Your task to perform on an android device: delete a single message in the gmail app Image 0: 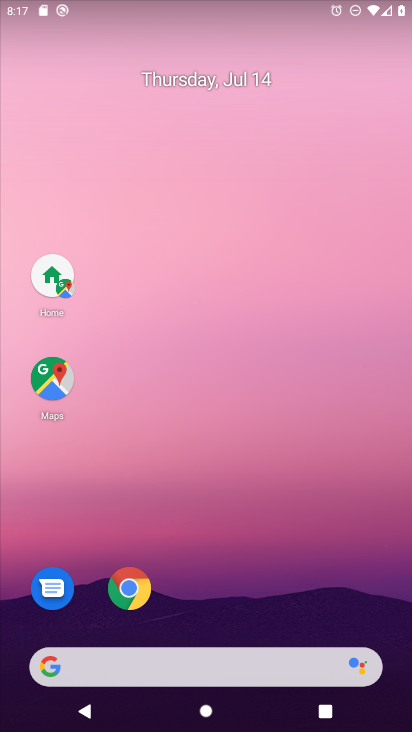
Step 0: drag from (37, 698) to (238, 96)
Your task to perform on an android device: delete a single message in the gmail app Image 1: 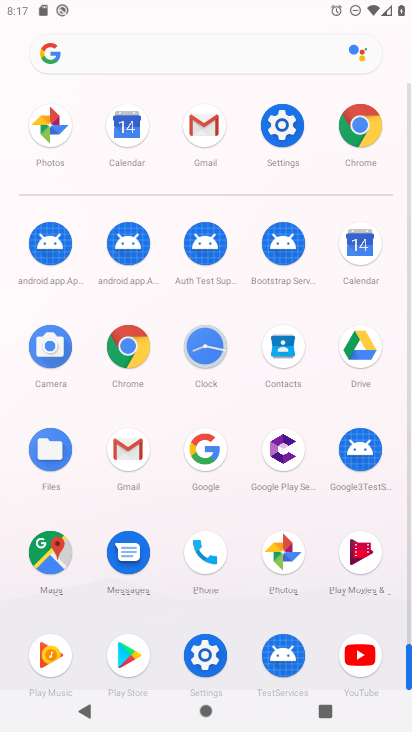
Step 1: click (222, 126)
Your task to perform on an android device: delete a single message in the gmail app Image 2: 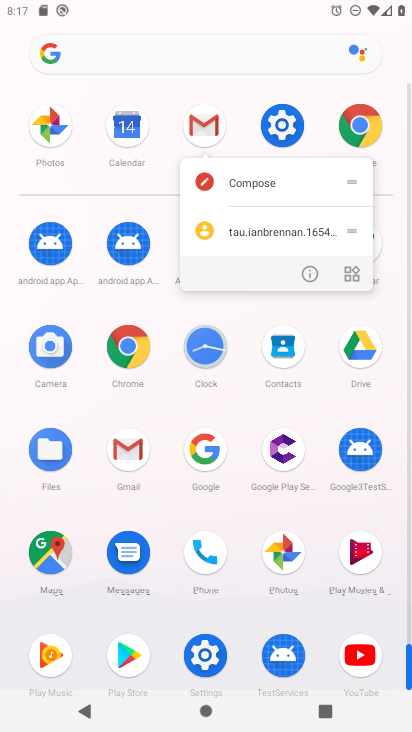
Step 2: click (212, 130)
Your task to perform on an android device: delete a single message in the gmail app Image 3: 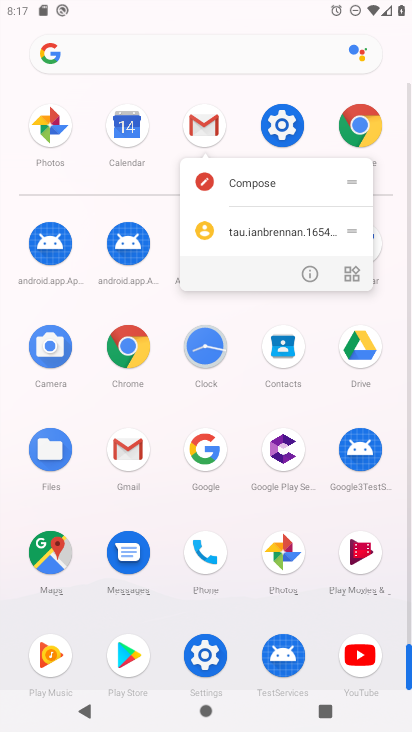
Step 3: click (204, 121)
Your task to perform on an android device: delete a single message in the gmail app Image 4: 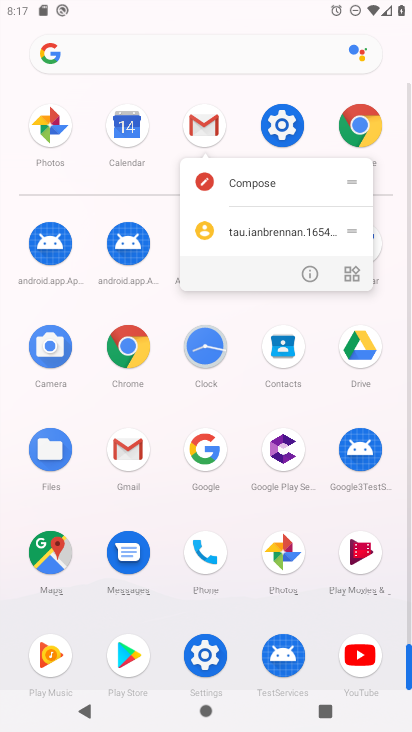
Step 4: click (196, 120)
Your task to perform on an android device: delete a single message in the gmail app Image 5: 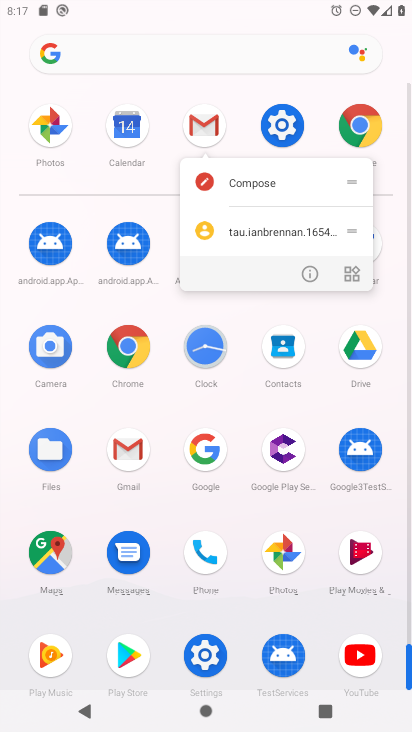
Step 5: task complete